Your task to perform on an android device: turn on sleep mode Image 0: 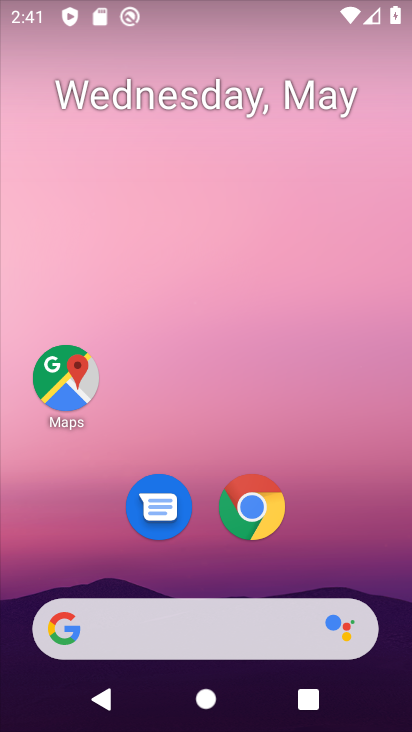
Step 0: drag from (351, 554) to (30, 7)
Your task to perform on an android device: turn on sleep mode Image 1: 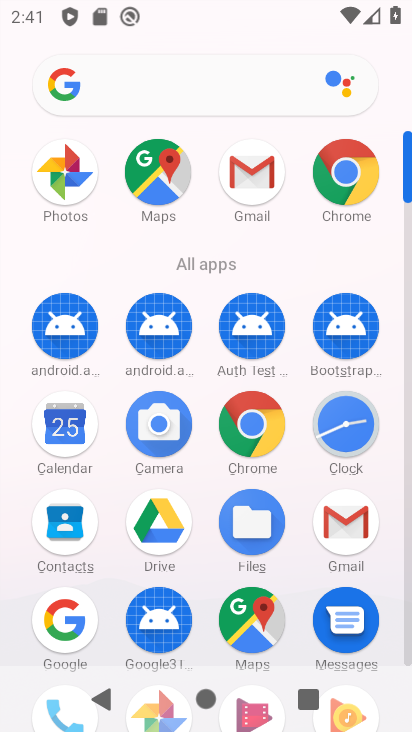
Step 1: drag from (10, 535) to (33, 203)
Your task to perform on an android device: turn on sleep mode Image 2: 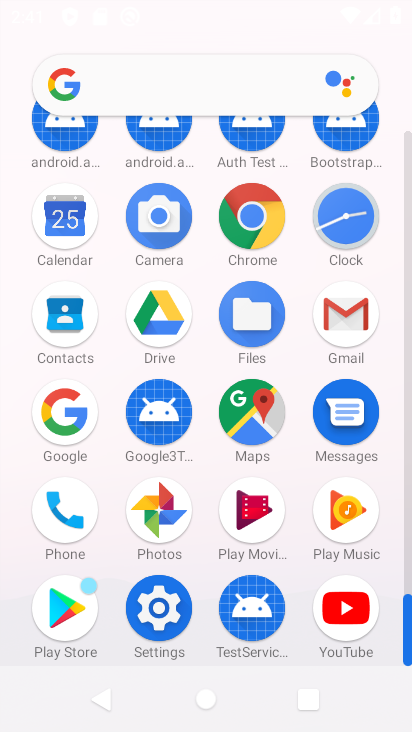
Step 2: click (159, 605)
Your task to perform on an android device: turn on sleep mode Image 3: 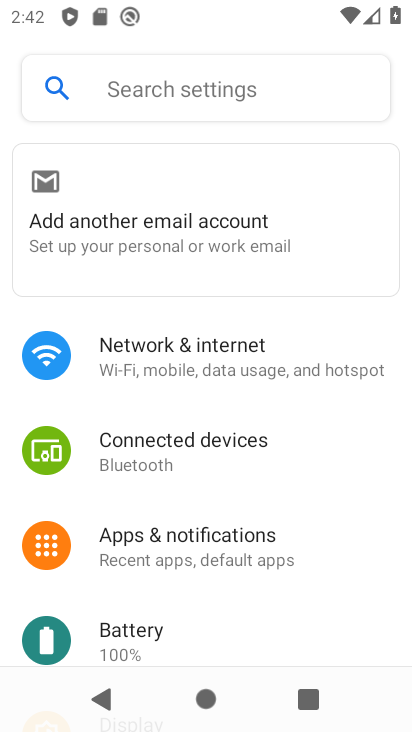
Step 3: drag from (313, 535) to (314, 232)
Your task to perform on an android device: turn on sleep mode Image 4: 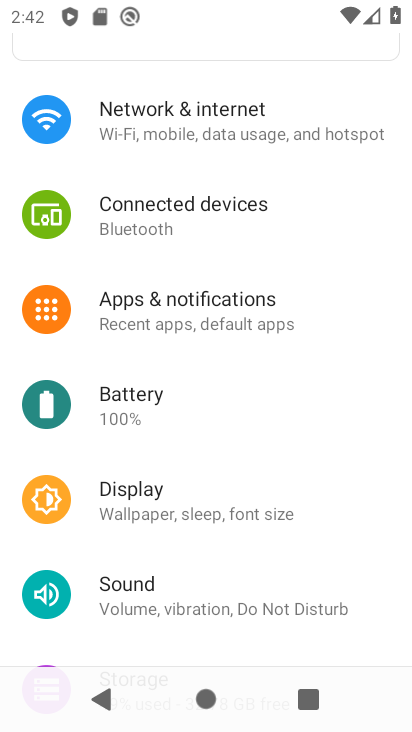
Step 4: click (221, 520)
Your task to perform on an android device: turn on sleep mode Image 5: 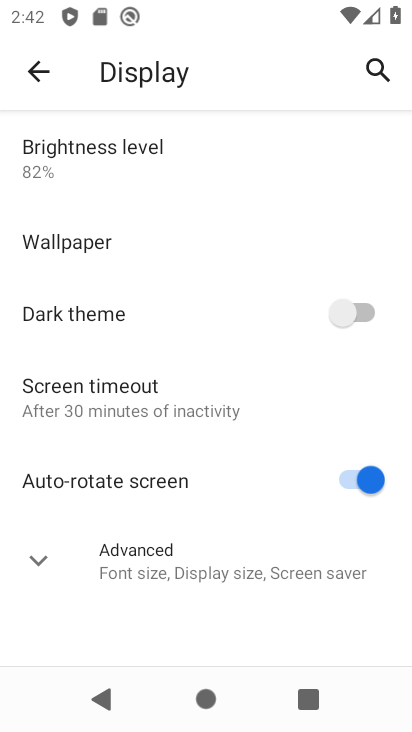
Step 5: click (31, 556)
Your task to perform on an android device: turn on sleep mode Image 6: 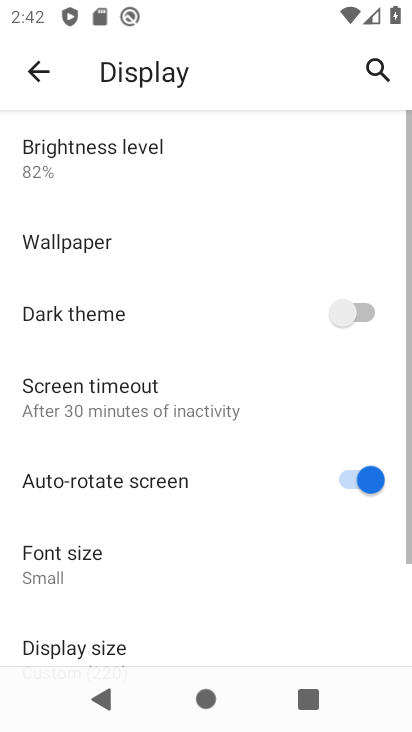
Step 6: task complete